Your task to perform on an android device: open the mobile data screen to see how much data has been used Image 0: 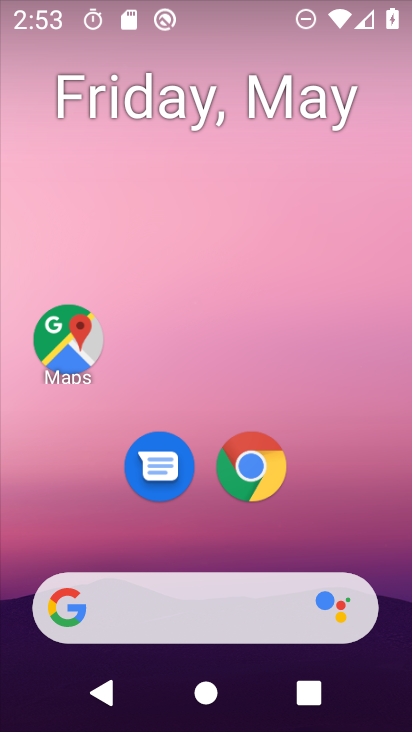
Step 0: drag from (351, 503) to (382, 0)
Your task to perform on an android device: open the mobile data screen to see how much data has been used Image 1: 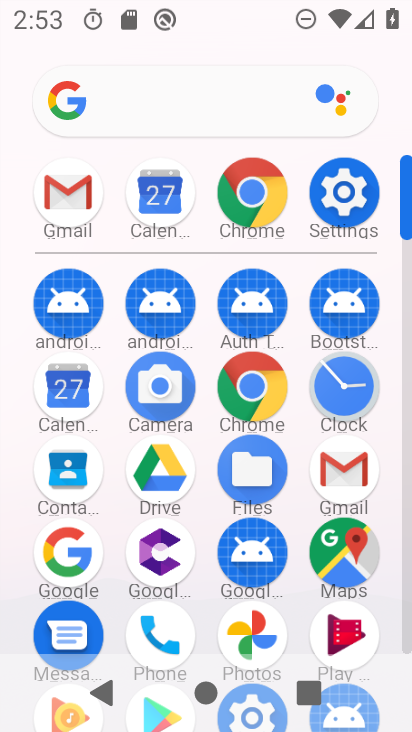
Step 1: click (348, 199)
Your task to perform on an android device: open the mobile data screen to see how much data has been used Image 2: 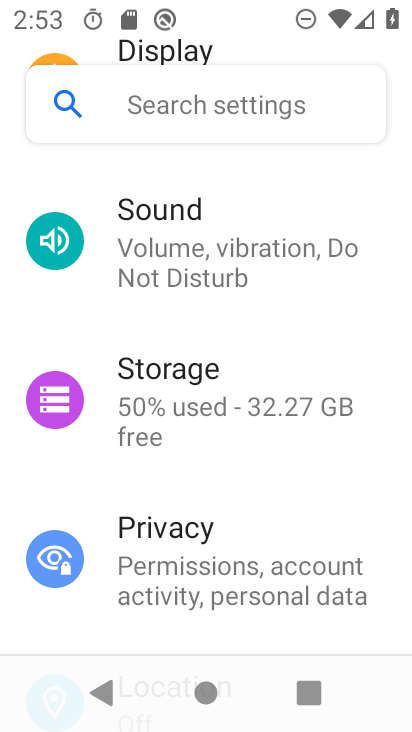
Step 2: drag from (197, 247) to (202, 634)
Your task to perform on an android device: open the mobile data screen to see how much data has been used Image 3: 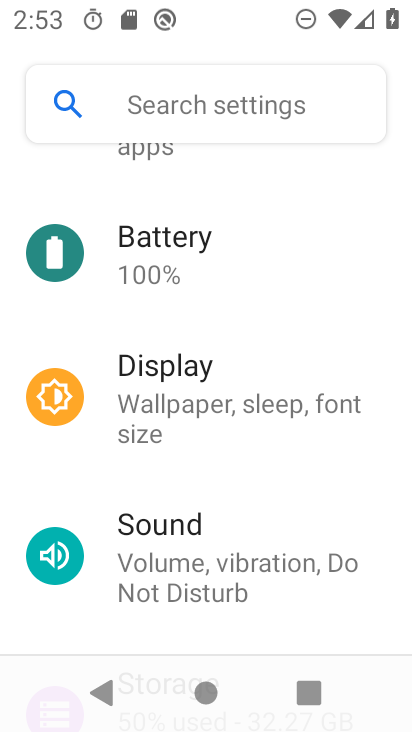
Step 3: drag from (278, 168) to (266, 635)
Your task to perform on an android device: open the mobile data screen to see how much data has been used Image 4: 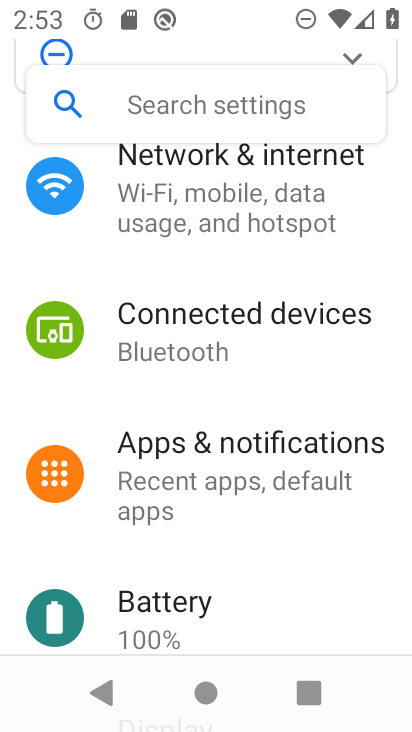
Step 4: drag from (278, 179) to (273, 628)
Your task to perform on an android device: open the mobile data screen to see how much data has been used Image 5: 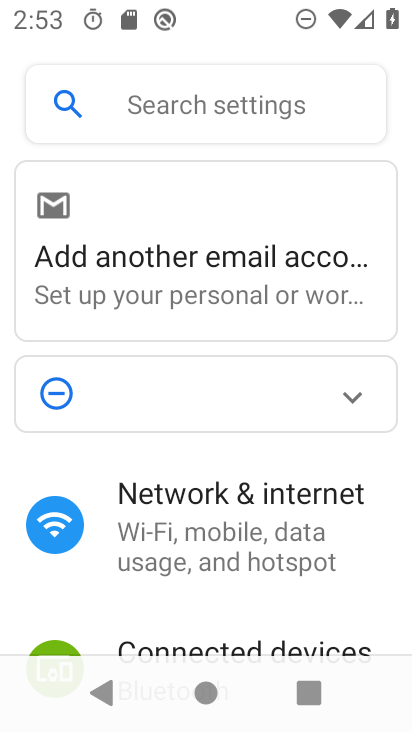
Step 5: click (204, 552)
Your task to perform on an android device: open the mobile data screen to see how much data has been used Image 6: 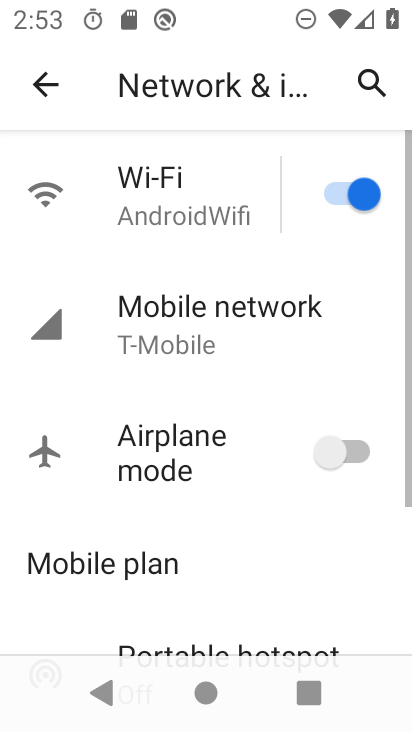
Step 6: drag from (205, 527) to (242, 256)
Your task to perform on an android device: open the mobile data screen to see how much data has been used Image 7: 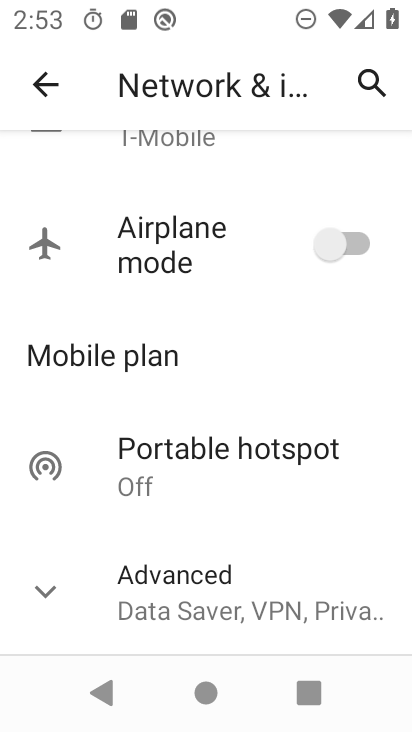
Step 7: drag from (243, 257) to (213, 535)
Your task to perform on an android device: open the mobile data screen to see how much data has been used Image 8: 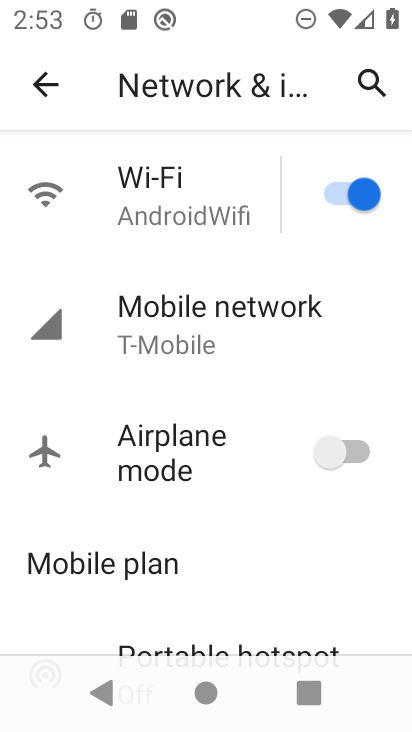
Step 8: click (224, 334)
Your task to perform on an android device: open the mobile data screen to see how much data has been used Image 9: 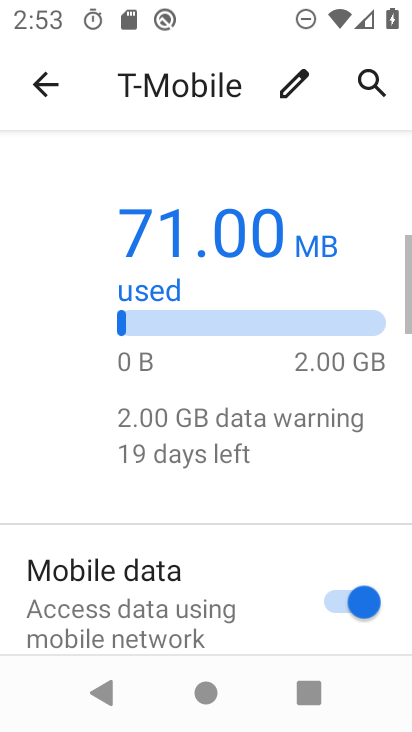
Step 9: task complete